Your task to perform on an android device: Open battery settings Image 0: 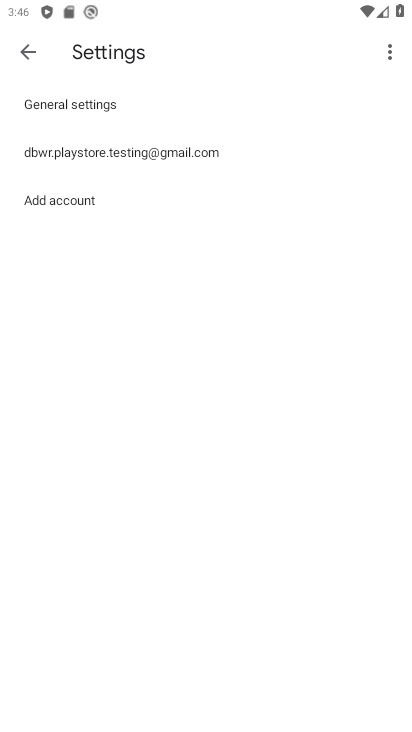
Step 0: press home button
Your task to perform on an android device: Open battery settings Image 1: 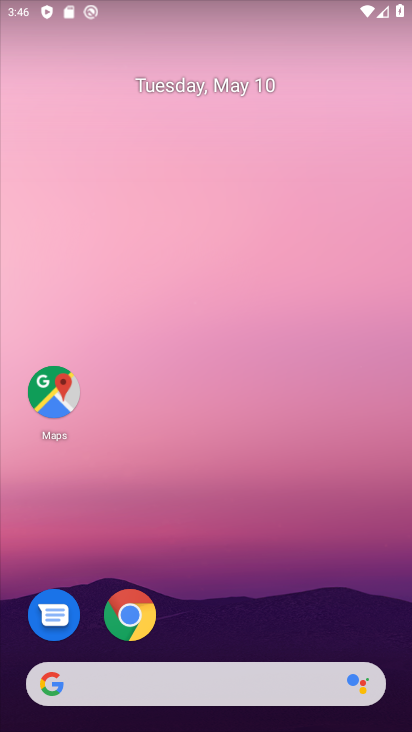
Step 1: drag from (223, 605) to (247, 228)
Your task to perform on an android device: Open battery settings Image 2: 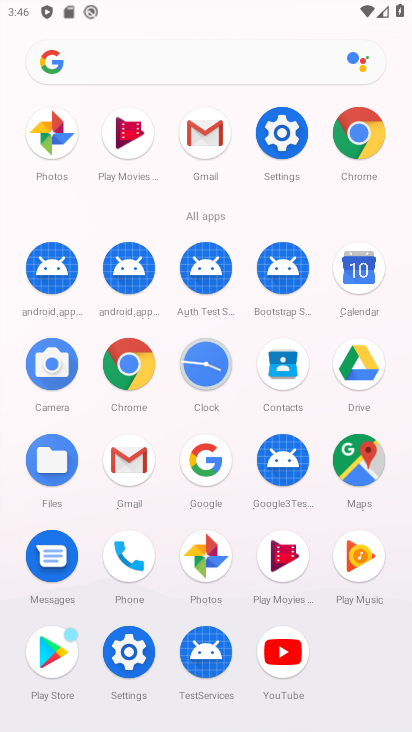
Step 2: click (292, 154)
Your task to perform on an android device: Open battery settings Image 3: 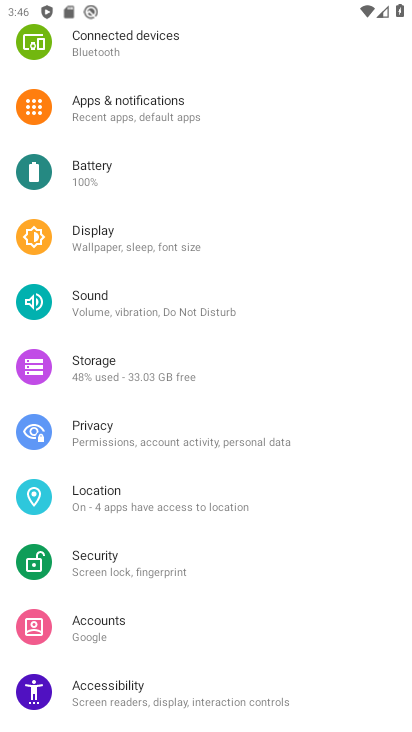
Step 3: click (204, 184)
Your task to perform on an android device: Open battery settings Image 4: 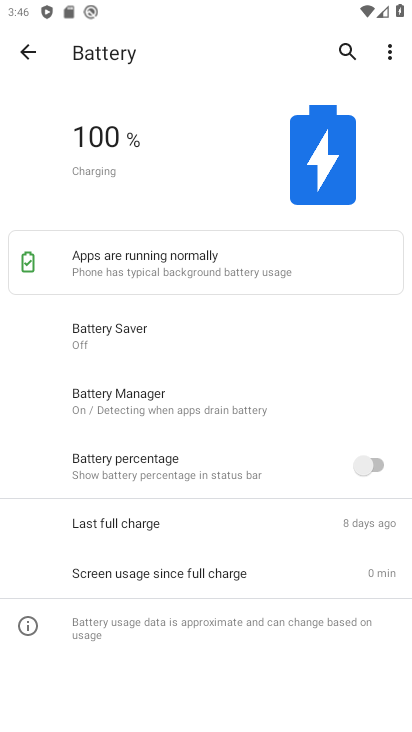
Step 4: task complete